Your task to perform on an android device: remove spam from my inbox in the gmail app Image 0: 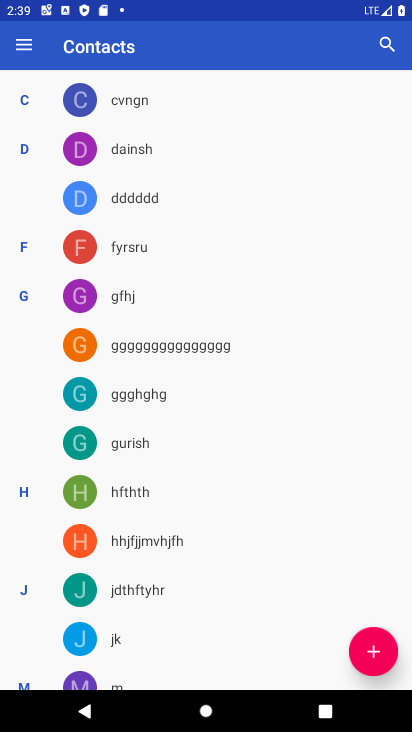
Step 0: press home button
Your task to perform on an android device: remove spam from my inbox in the gmail app Image 1: 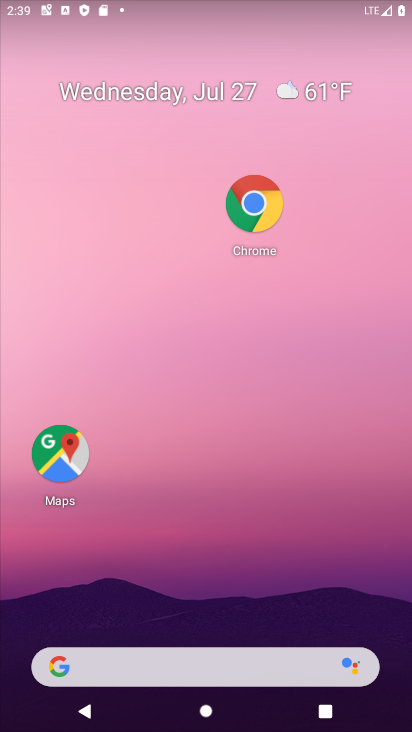
Step 1: drag from (229, 604) to (220, 295)
Your task to perform on an android device: remove spam from my inbox in the gmail app Image 2: 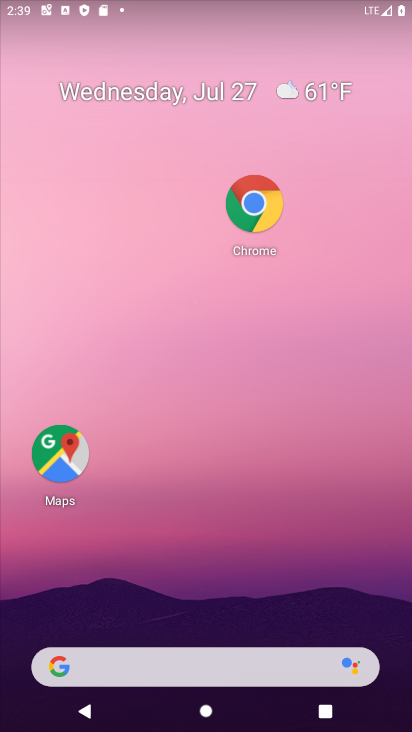
Step 2: click (286, 67)
Your task to perform on an android device: remove spam from my inbox in the gmail app Image 3: 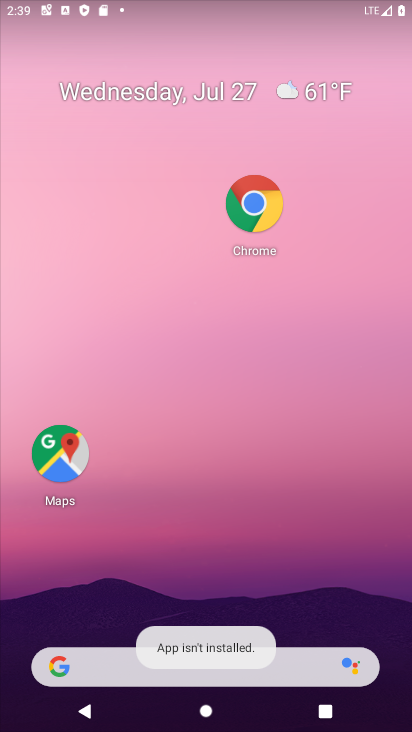
Step 3: drag from (220, 587) to (192, 189)
Your task to perform on an android device: remove spam from my inbox in the gmail app Image 4: 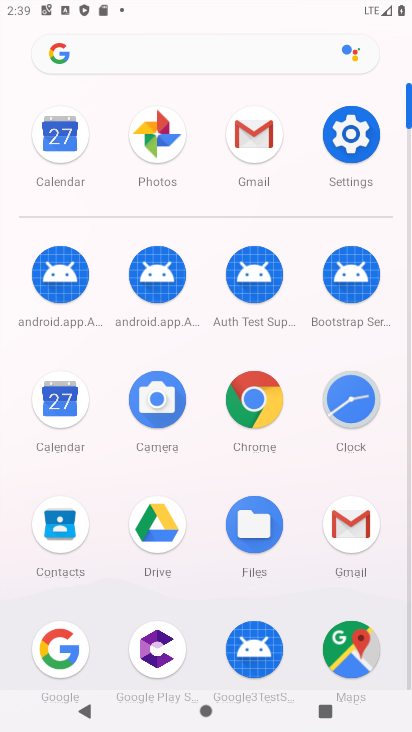
Step 4: click (265, 139)
Your task to perform on an android device: remove spam from my inbox in the gmail app Image 5: 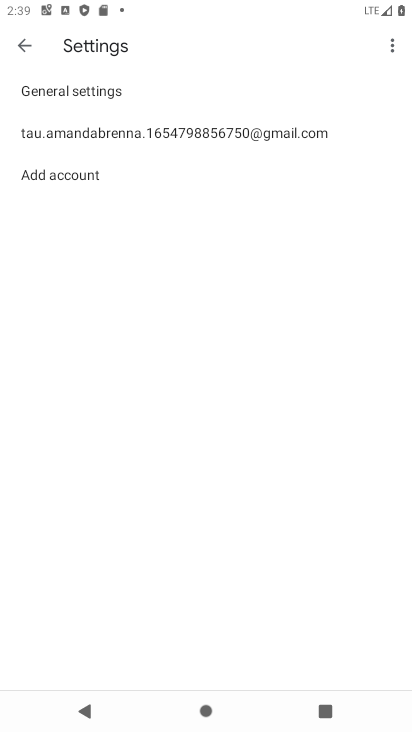
Step 5: click (22, 38)
Your task to perform on an android device: remove spam from my inbox in the gmail app Image 6: 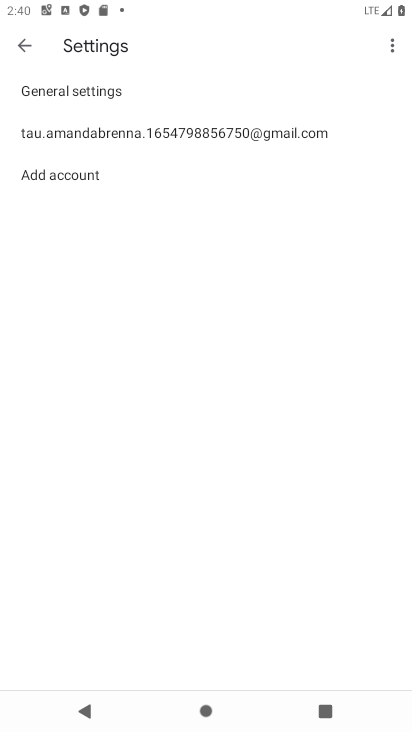
Step 6: click (22, 38)
Your task to perform on an android device: remove spam from my inbox in the gmail app Image 7: 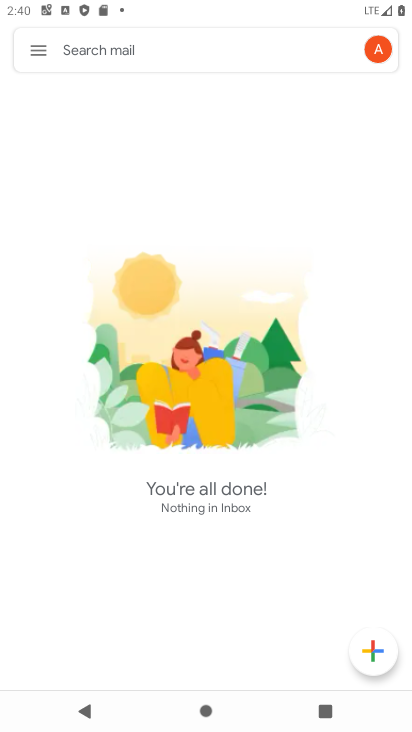
Step 7: click (48, 55)
Your task to perform on an android device: remove spam from my inbox in the gmail app Image 8: 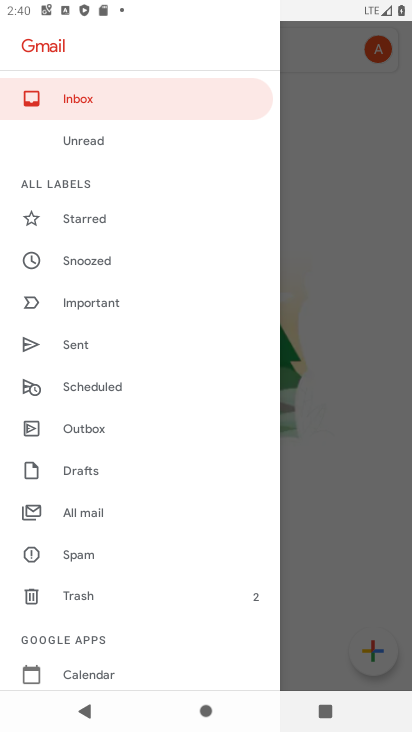
Step 8: click (103, 564)
Your task to perform on an android device: remove spam from my inbox in the gmail app Image 9: 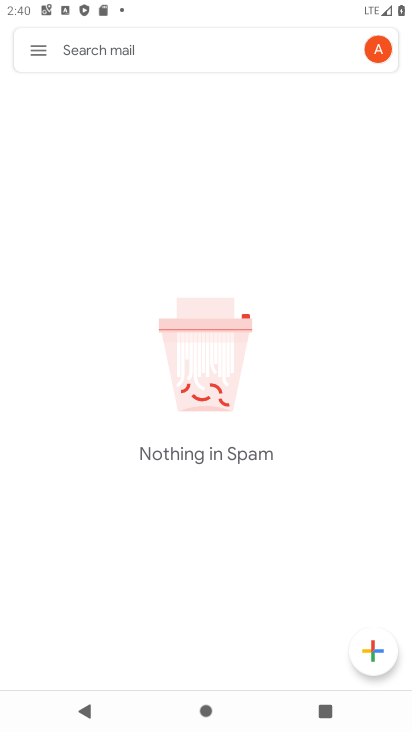
Step 9: task complete